Your task to perform on an android device: Show me the alarms in the clock app Image 0: 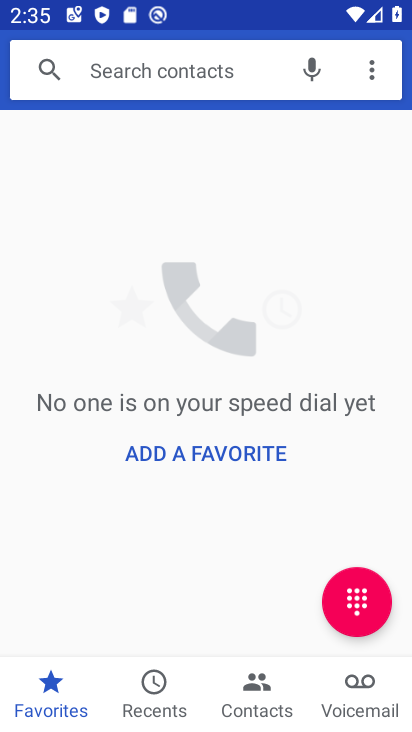
Step 0: drag from (246, 518) to (344, 256)
Your task to perform on an android device: Show me the alarms in the clock app Image 1: 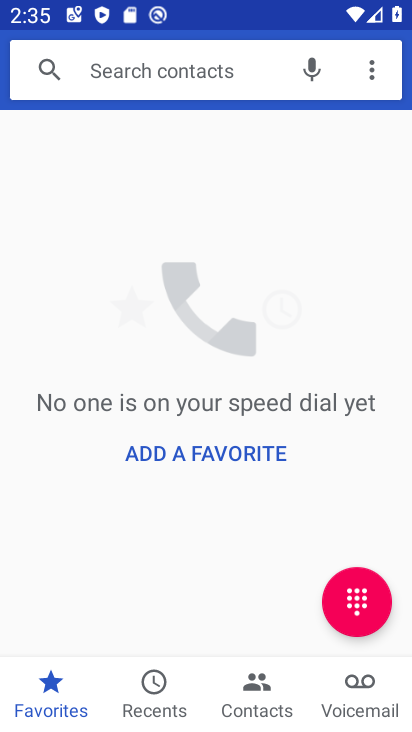
Step 1: press home button
Your task to perform on an android device: Show me the alarms in the clock app Image 2: 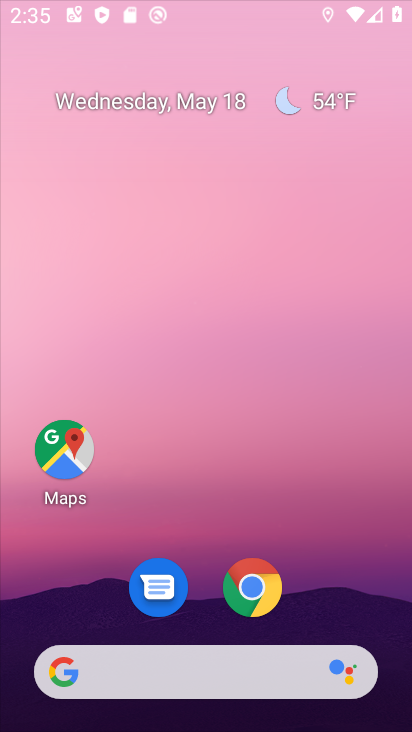
Step 2: drag from (224, 646) to (282, 122)
Your task to perform on an android device: Show me the alarms in the clock app Image 3: 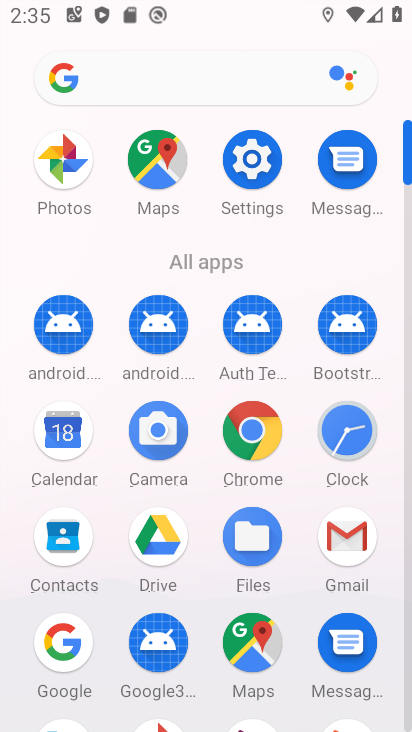
Step 3: click (350, 425)
Your task to perform on an android device: Show me the alarms in the clock app Image 4: 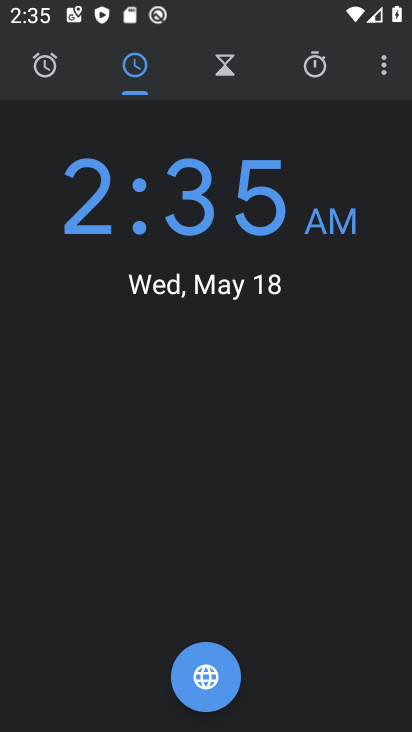
Step 4: click (384, 66)
Your task to perform on an android device: Show me the alarms in the clock app Image 5: 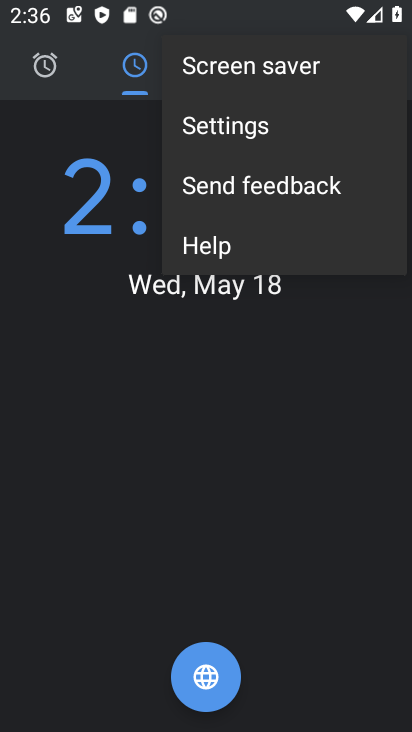
Step 5: click (63, 80)
Your task to perform on an android device: Show me the alarms in the clock app Image 6: 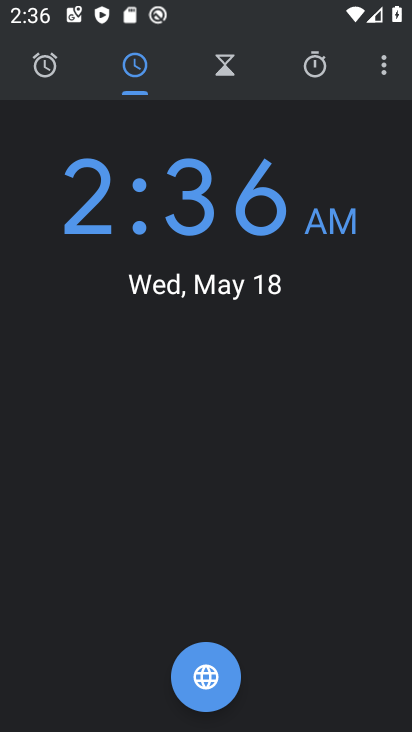
Step 6: click (51, 79)
Your task to perform on an android device: Show me the alarms in the clock app Image 7: 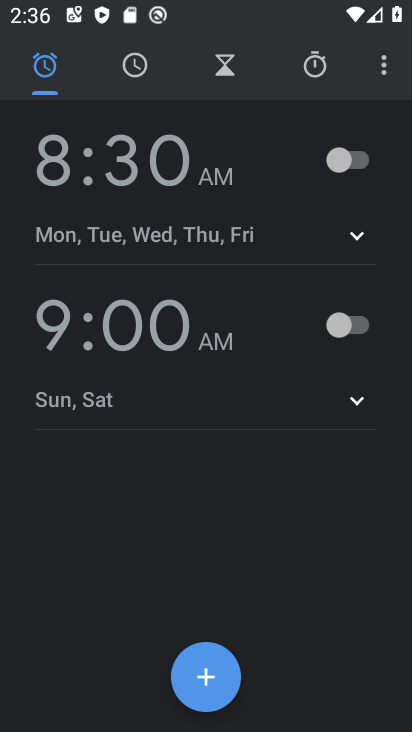
Step 7: task complete